Your task to perform on an android device: What is the recent news? Image 0: 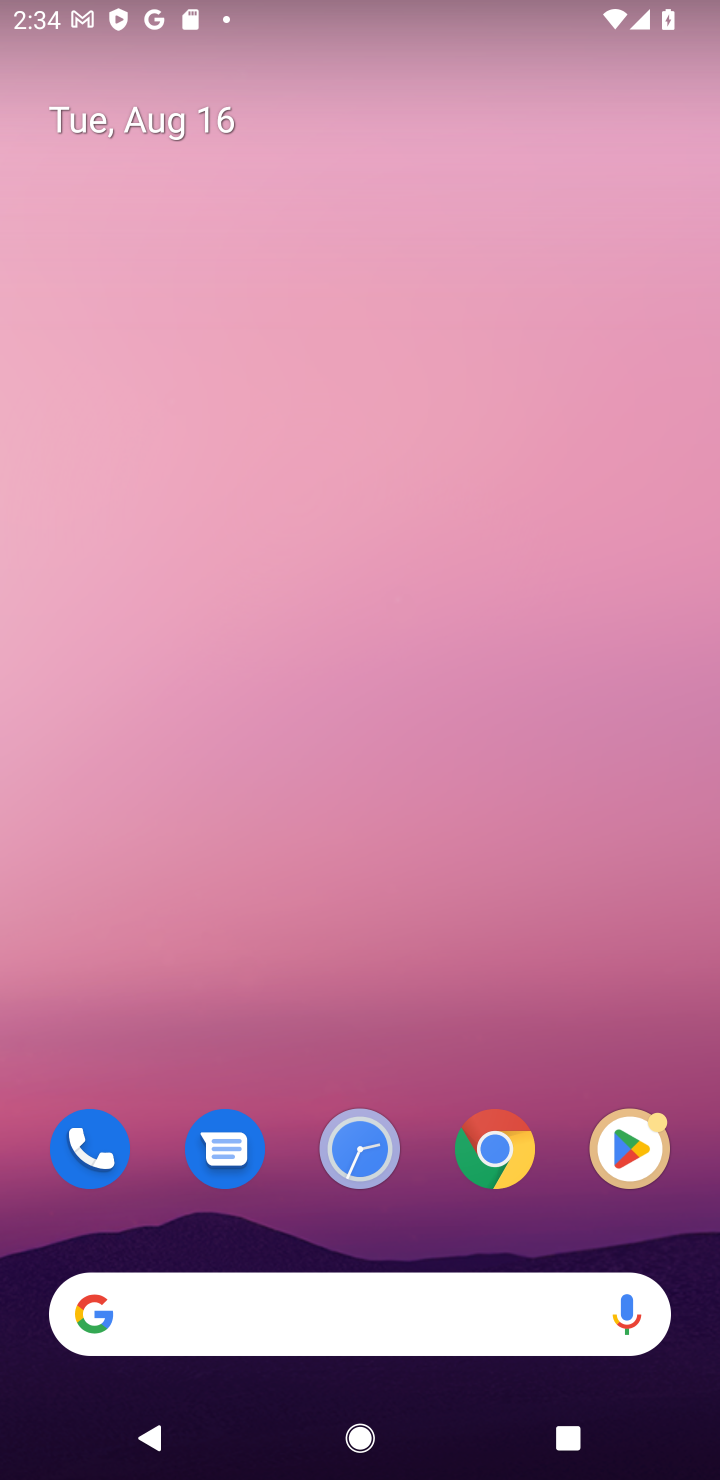
Step 0: click (340, 1325)
Your task to perform on an android device: What is the recent news? Image 1: 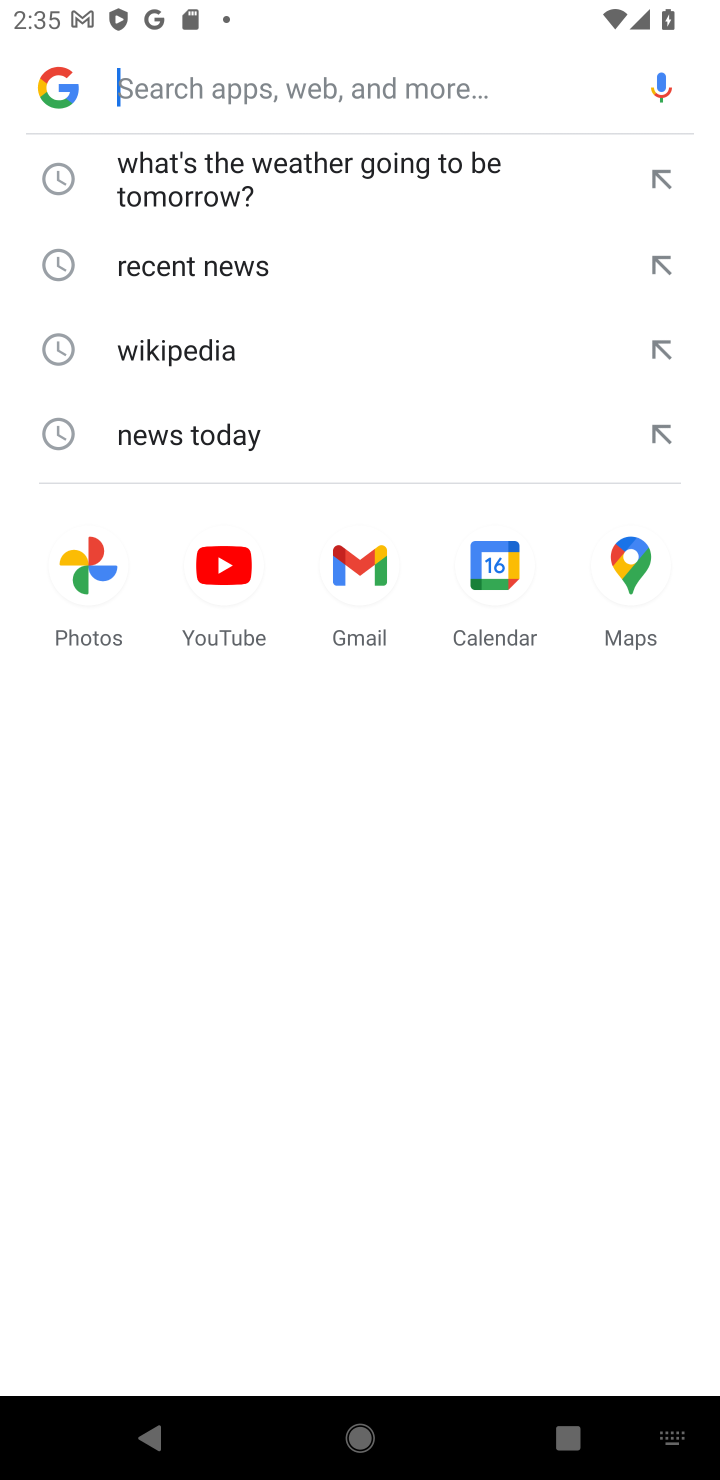
Step 1: click (191, 262)
Your task to perform on an android device: What is the recent news? Image 2: 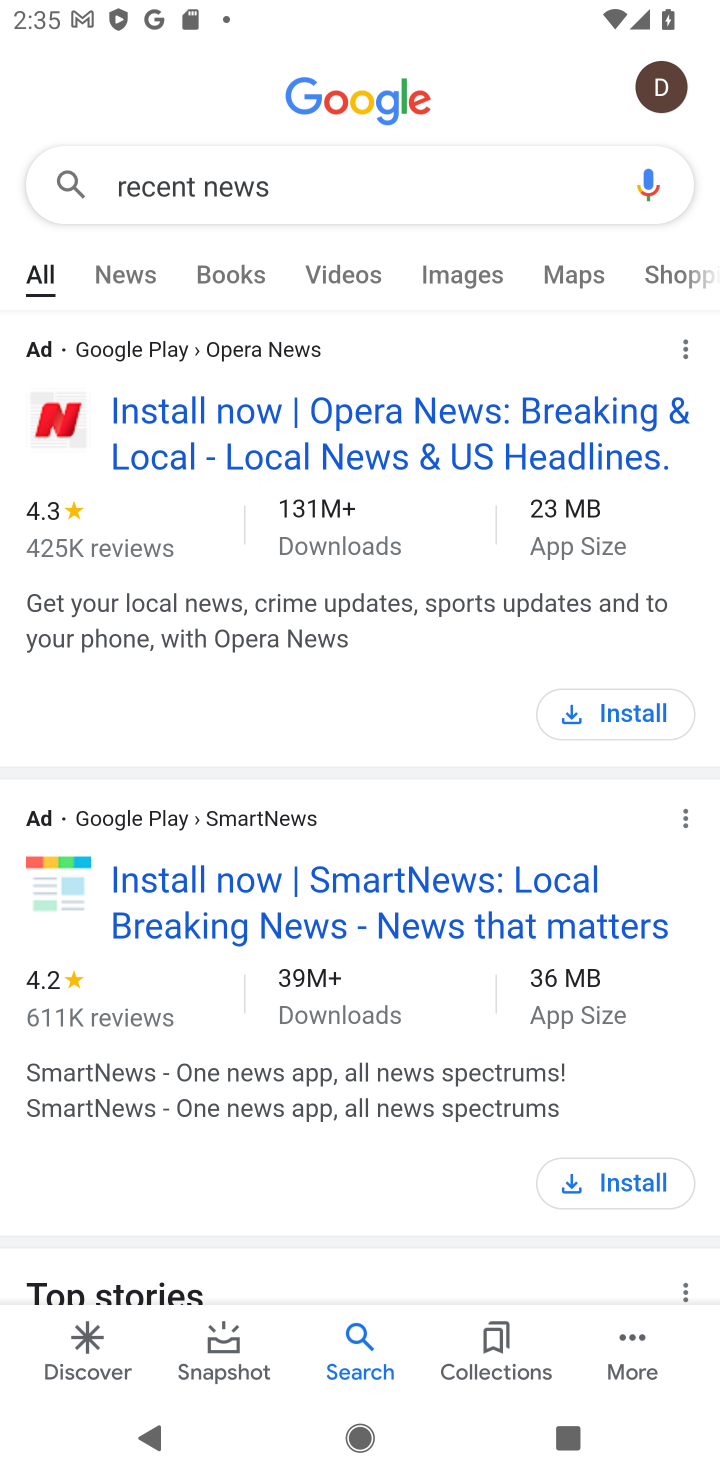
Step 2: click (137, 269)
Your task to perform on an android device: What is the recent news? Image 3: 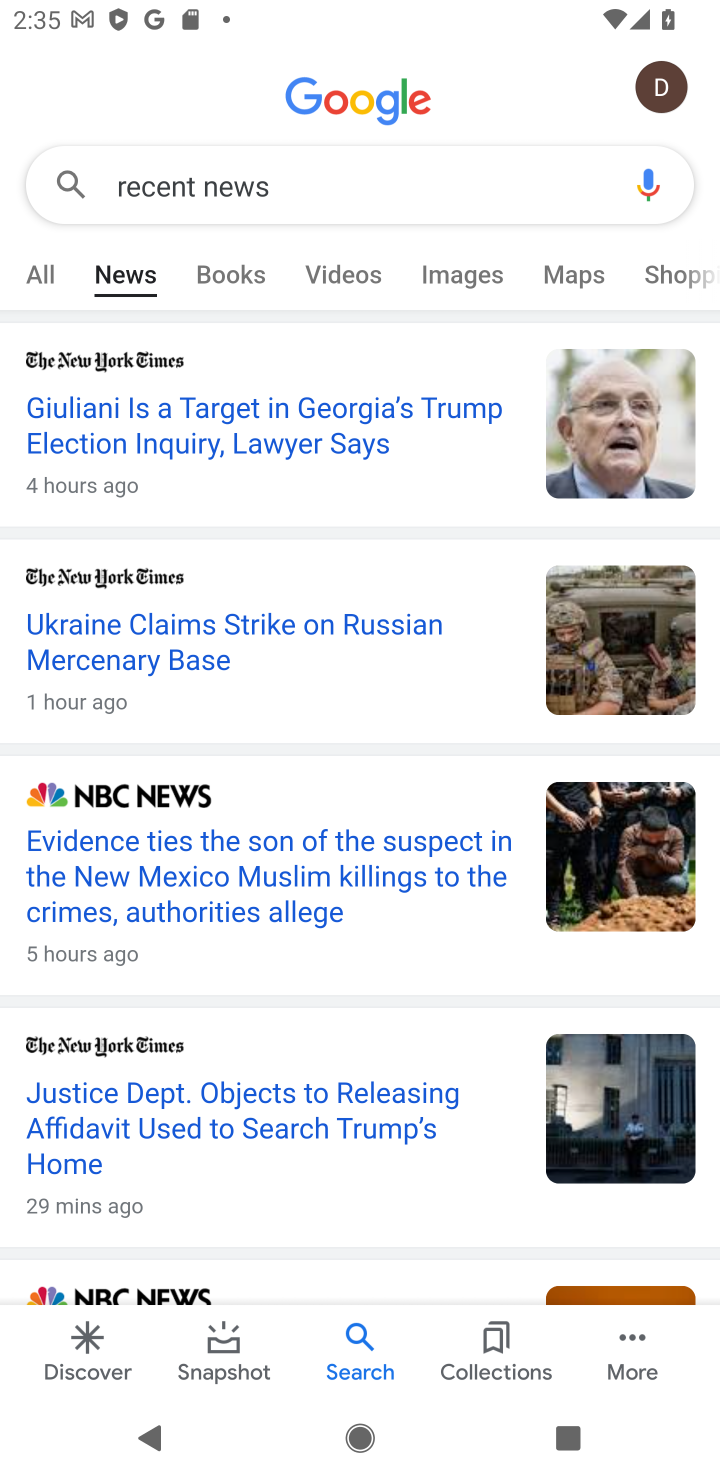
Step 3: task complete